Your task to perform on an android device: see tabs open on other devices in the chrome app Image 0: 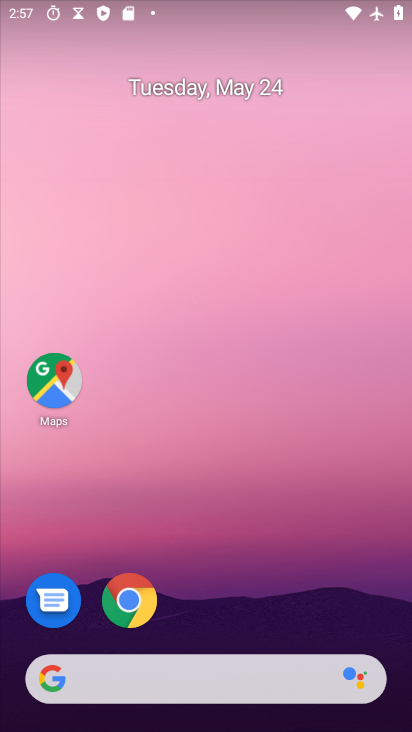
Step 0: click (132, 610)
Your task to perform on an android device: see tabs open on other devices in the chrome app Image 1: 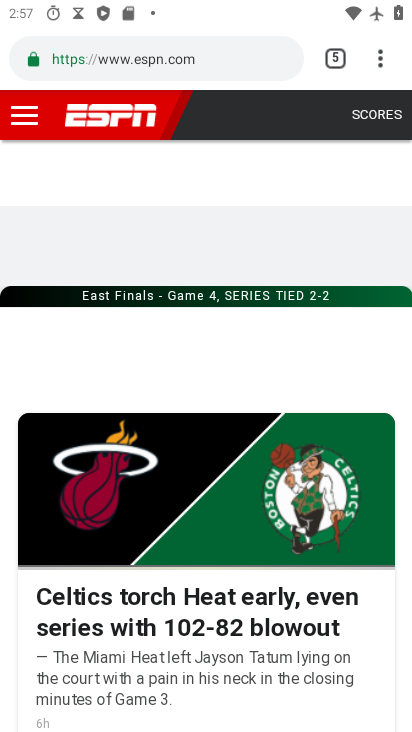
Step 1: click (381, 54)
Your task to perform on an android device: see tabs open on other devices in the chrome app Image 2: 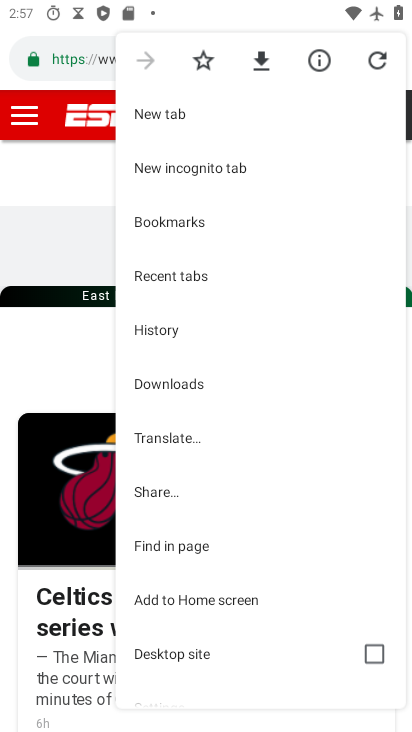
Step 2: click (228, 278)
Your task to perform on an android device: see tabs open on other devices in the chrome app Image 3: 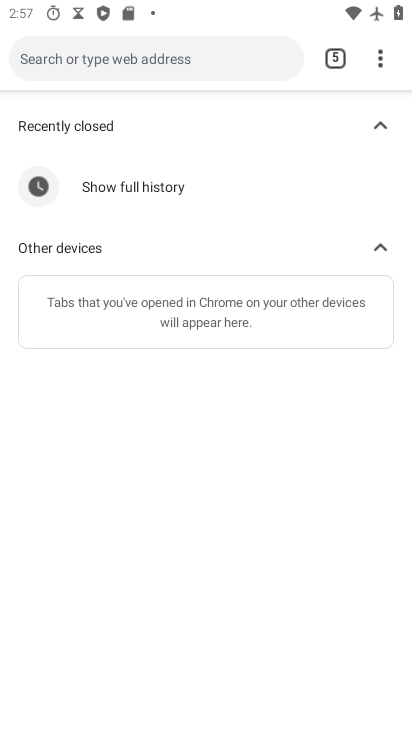
Step 3: task complete